Your task to perform on an android device: set default search engine in the chrome app Image 0: 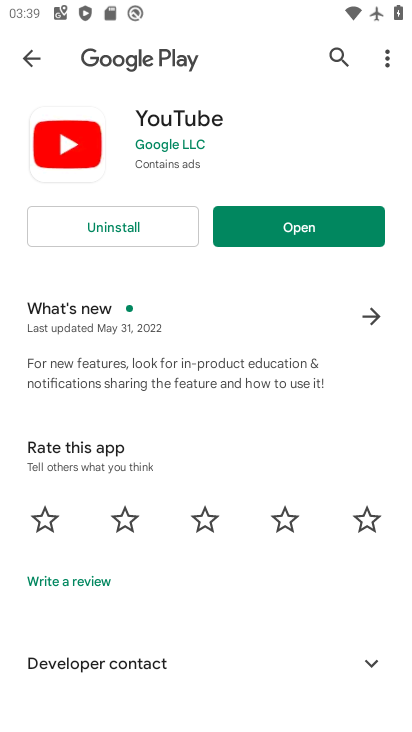
Step 0: press home button
Your task to perform on an android device: set default search engine in the chrome app Image 1: 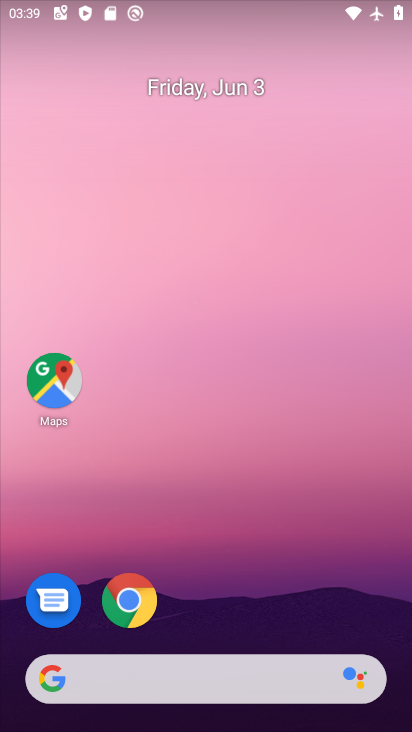
Step 1: click (134, 595)
Your task to perform on an android device: set default search engine in the chrome app Image 2: 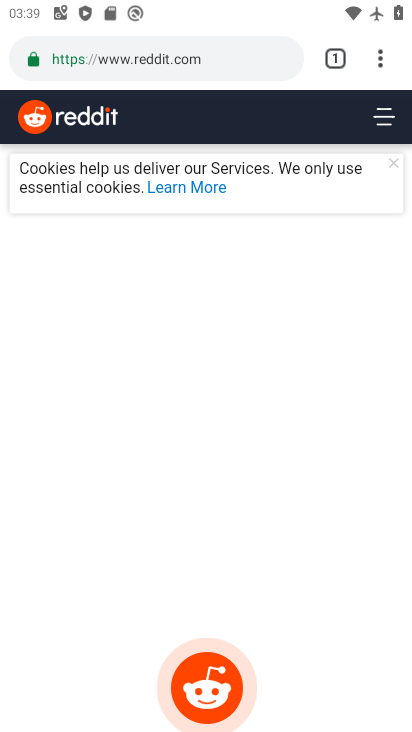
Step 2: click (375, 47)
Your task to perform on an android device: set default search engine in the chrome app Image 3: 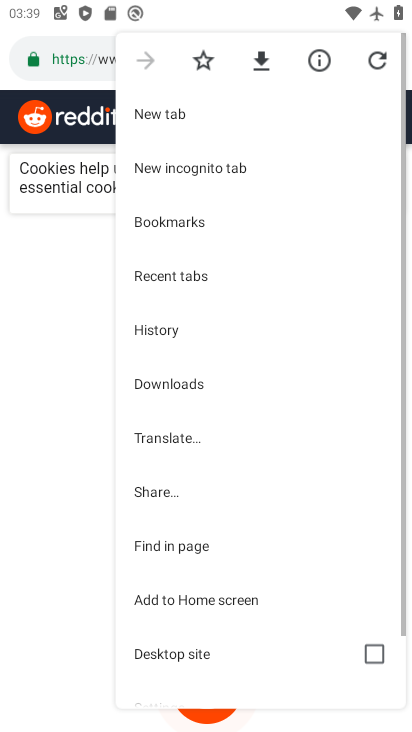
Step 3: drag from (202, 671) to (259, 342)
Your task to perform on an android device: set default search engine in the chrome app Image 4: 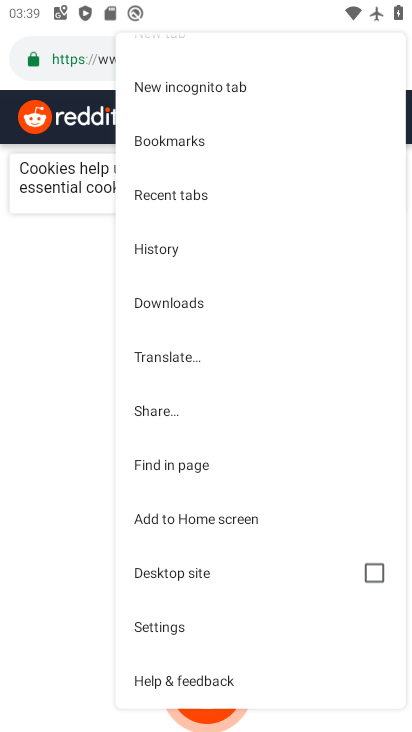
Step 4: click (175, 633)
Your task to perform on an android device: set default search engine in the chrome app Image 5: 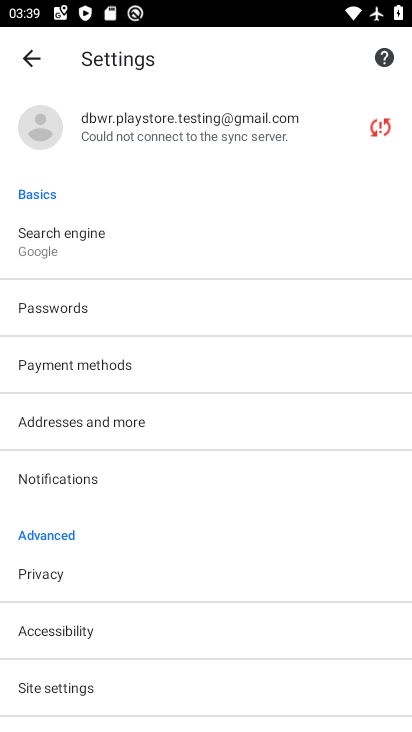
Step 5: click (59, 243)
Your task to perform on an android device: set default search engine in the chrome app Image 6: 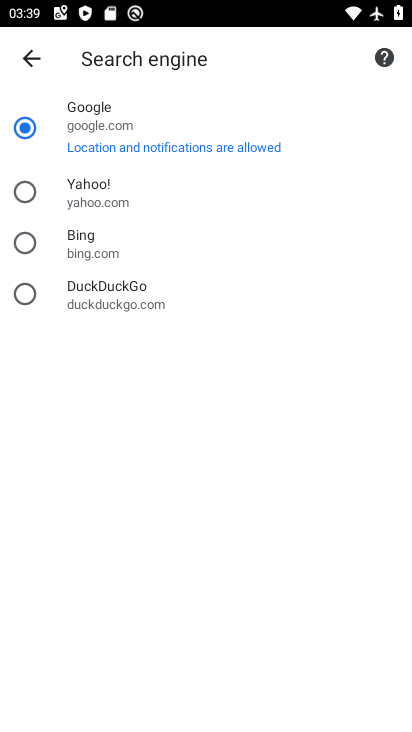
Step 6: click (113, 152)
Your task to perform on an android device: set default search engine in the chrome app Image 7: 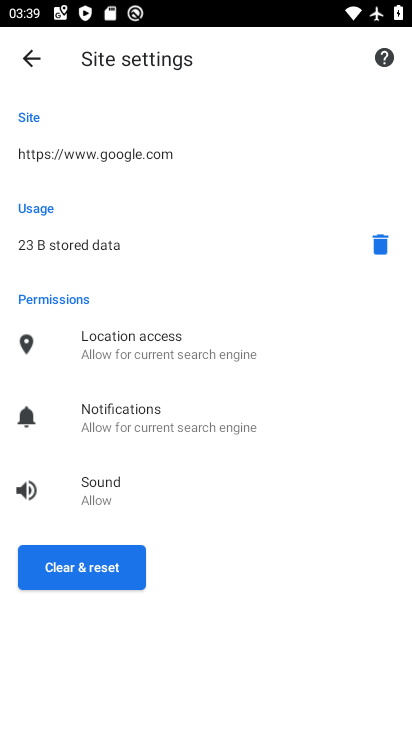
Step 7: click (91, 551)
Your task to perform on an android device: set default search engine in the chrome app Image 8: 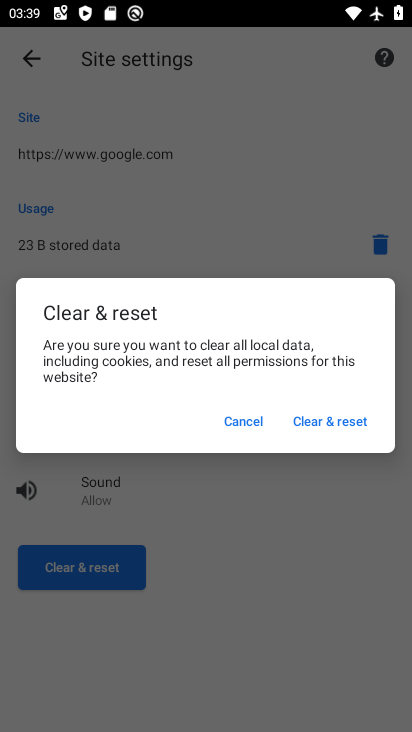
Step 8: click (345, 418)
Your task to perform on an android device: set default search engine in the chrome app Image 9: 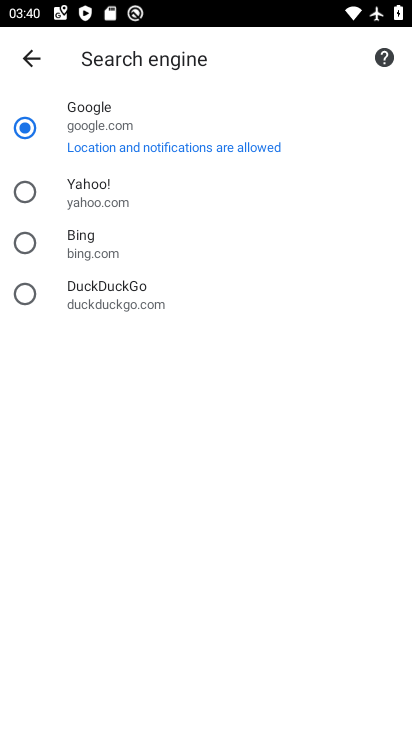
Step 9: task complete